Your task to perform on an android device: open app "Messages" Image 0: 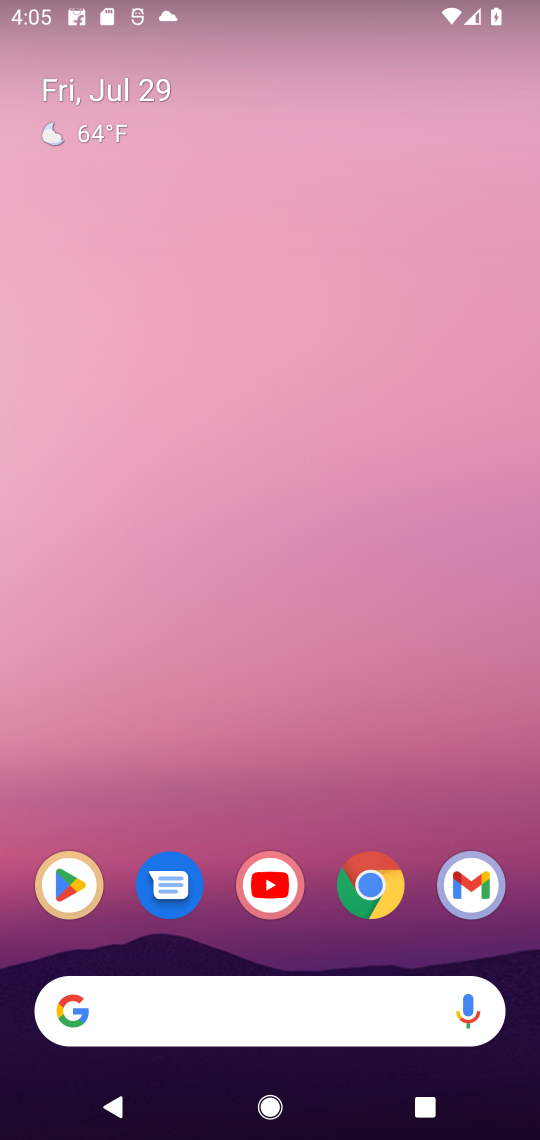
Step 0: click (87, 895)
Your task to perform on an android device: open app "Messages" Image 1: 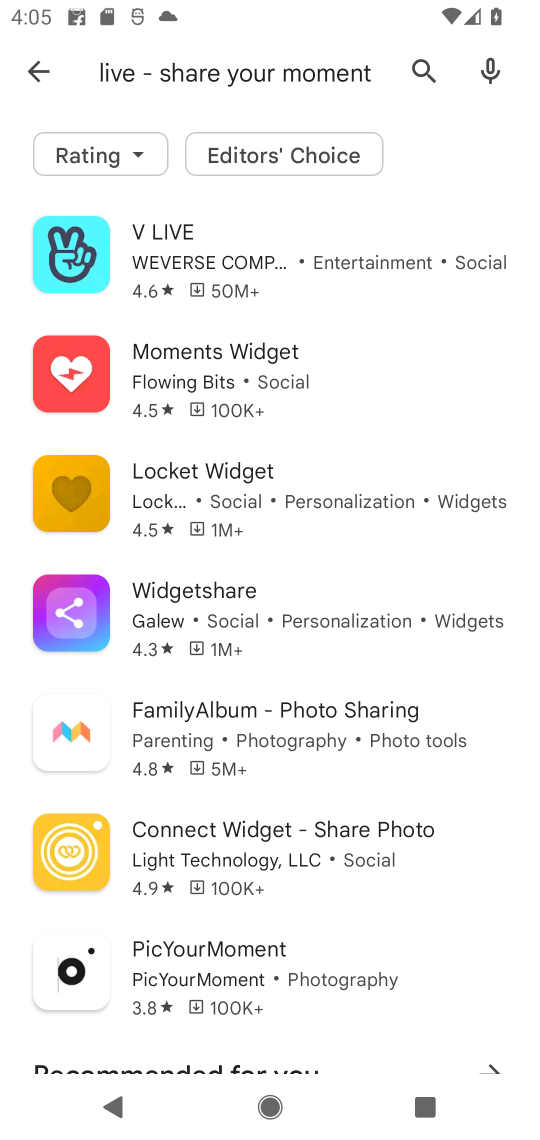
Step 1: click (422, 72)
Your task to perform on an android device: open app "Messages" Image 2: 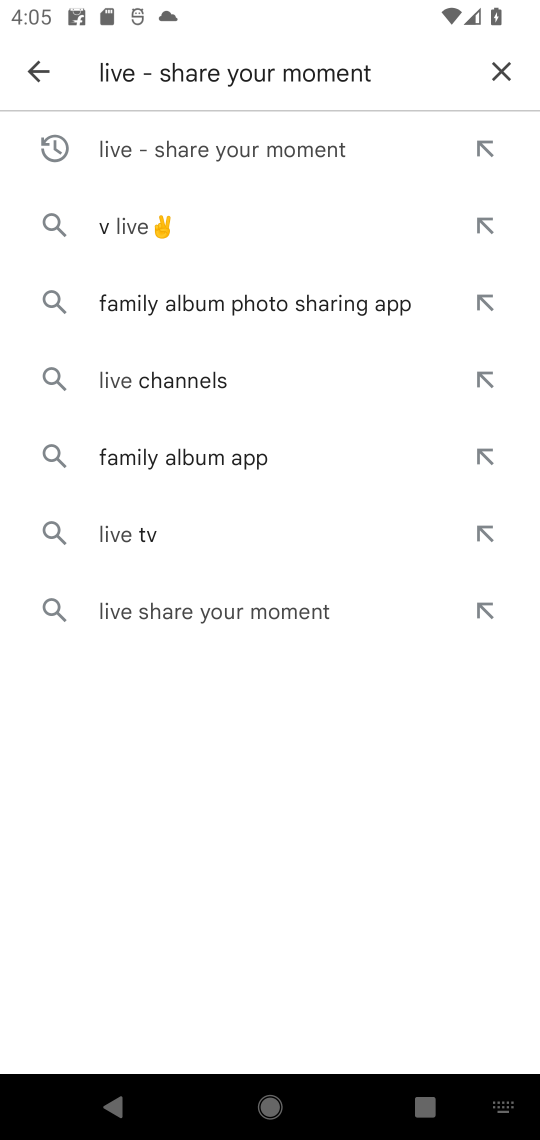
Step 2: click (499, 76)
Your task to perform on an android device: open app "Messages" Image 3: 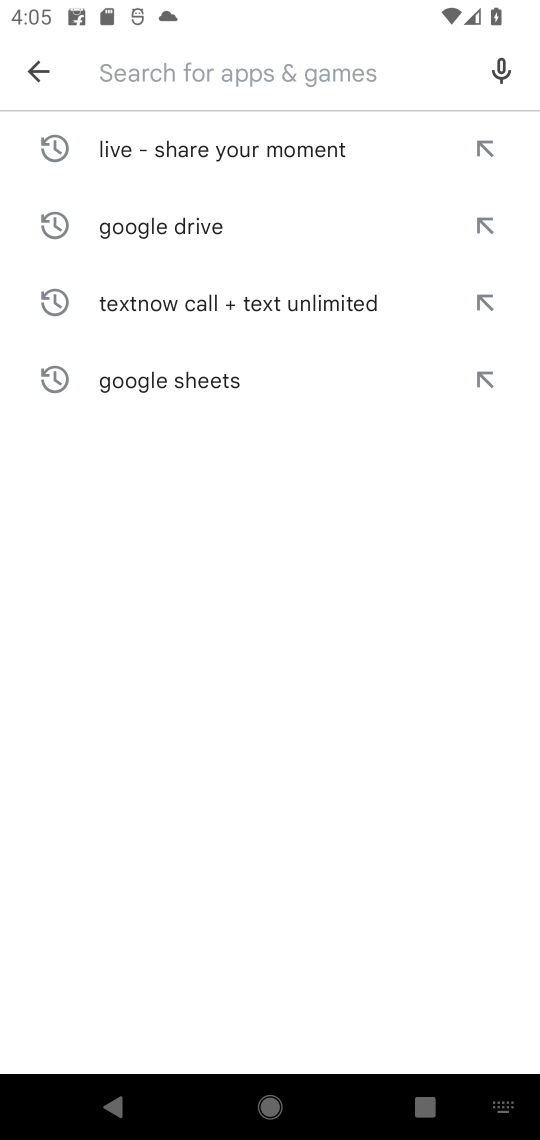
Step 3: type "Messages"
Your task to perform on an android device: open app "Messages" Image 4: 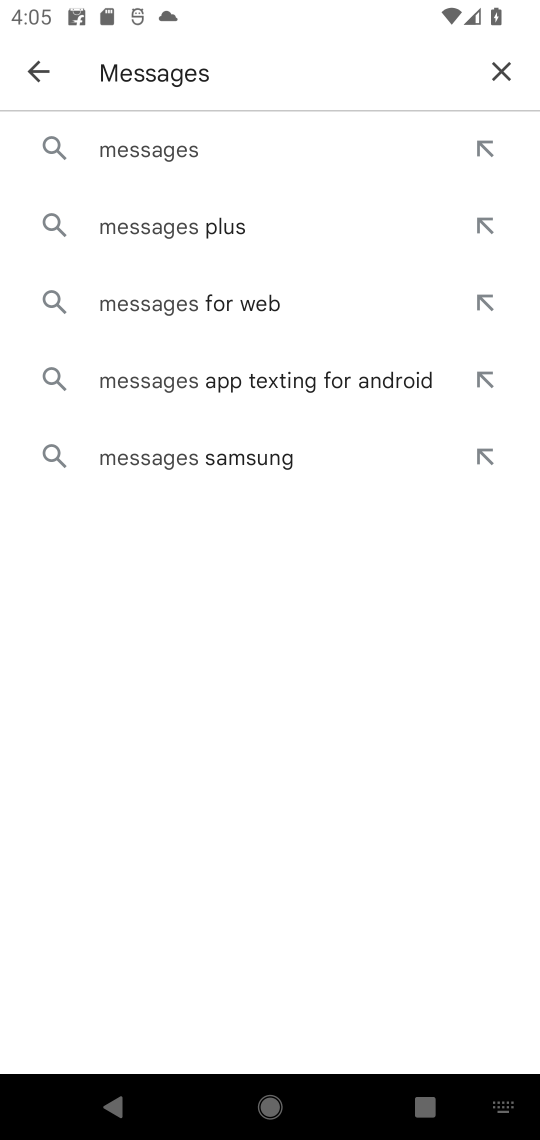
Step 4: click (173, 143)
Your task to perform on an android device: open app "Messages" Image 5: 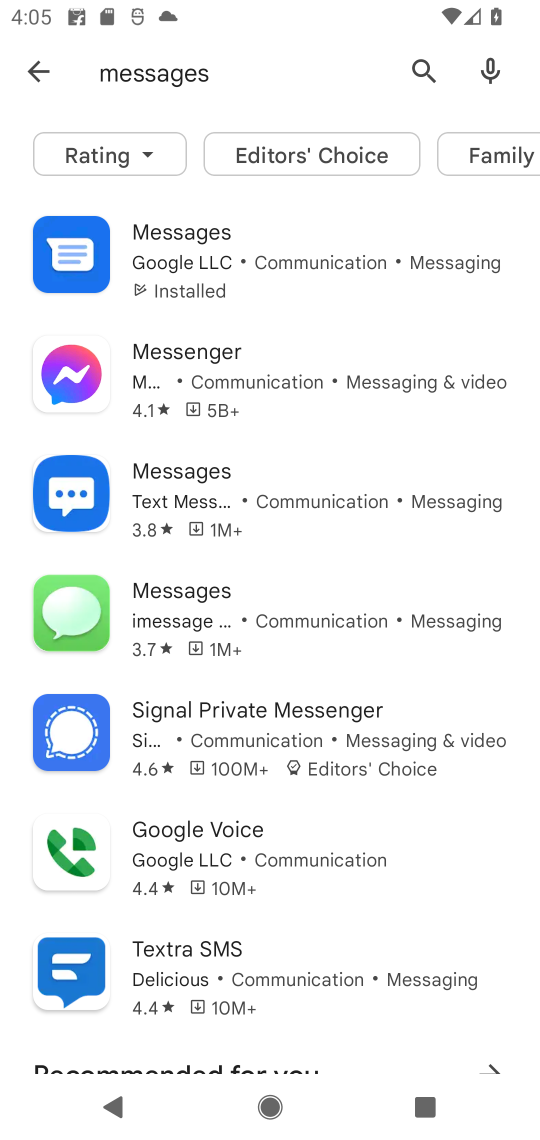
Step 5: task complete